Your task to perform on an android device: Search for sushi restaurants on Maps Image 0: 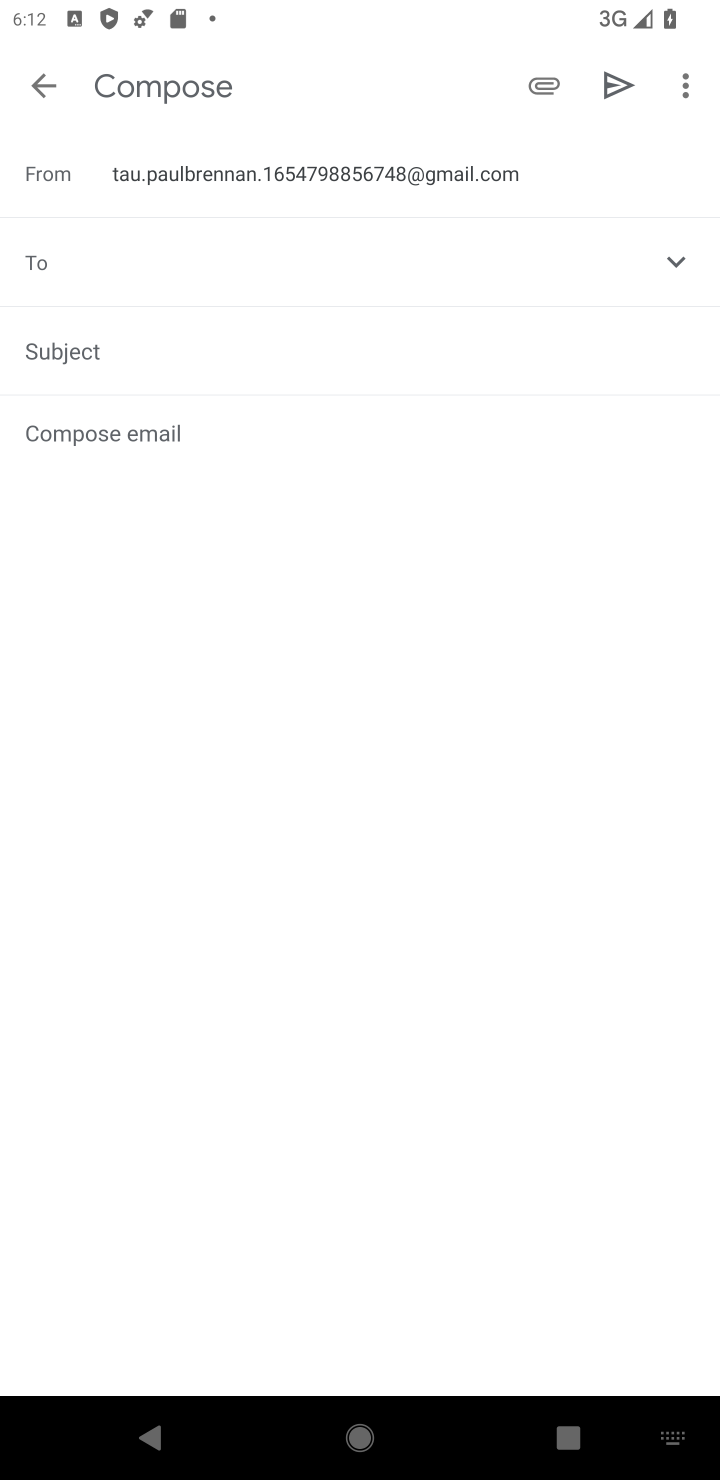
Step 0: press home button
Your task to perform on an android device: Search for sushi restaurants on Maps Image 1: 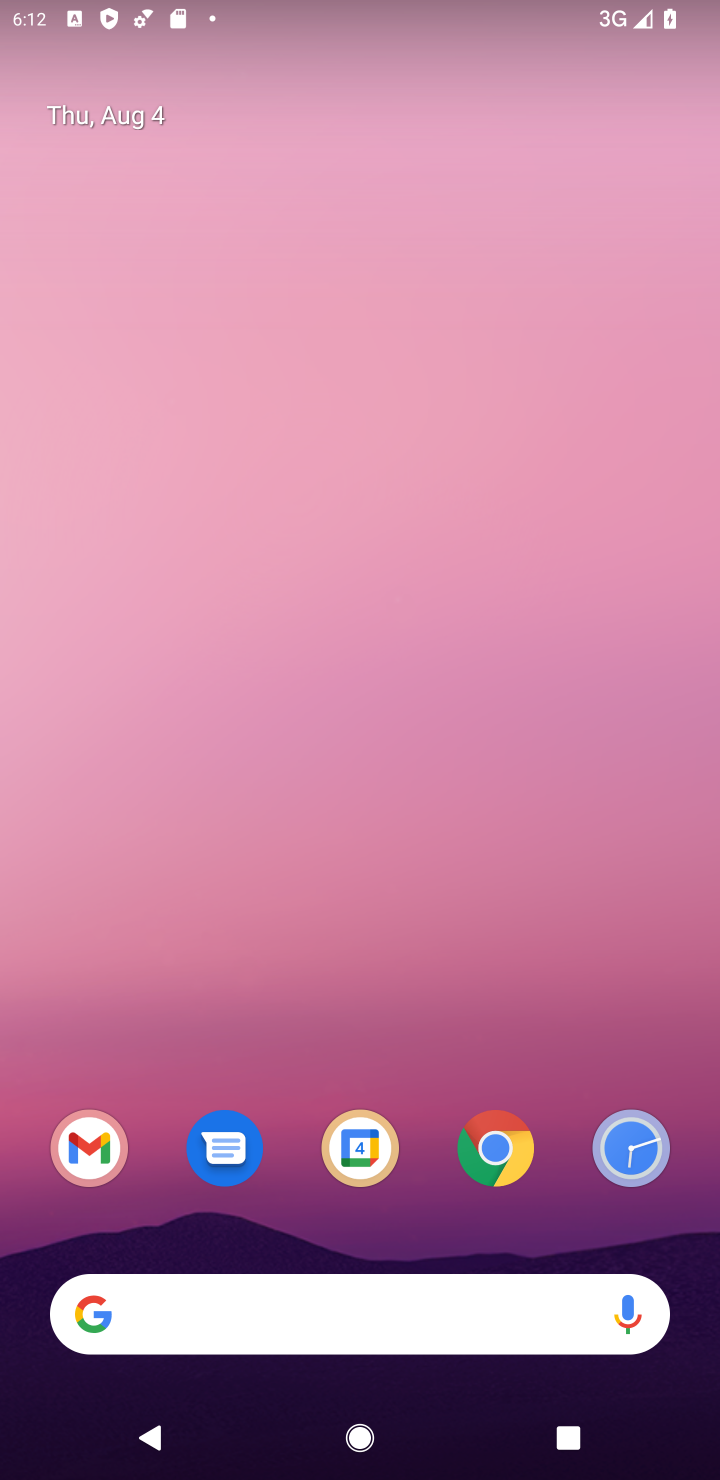
Step 1: drag from (412, 1247) to (402, 357)
Your task to perform on an android device: Search for sushi restaurants on Maps Image 2: 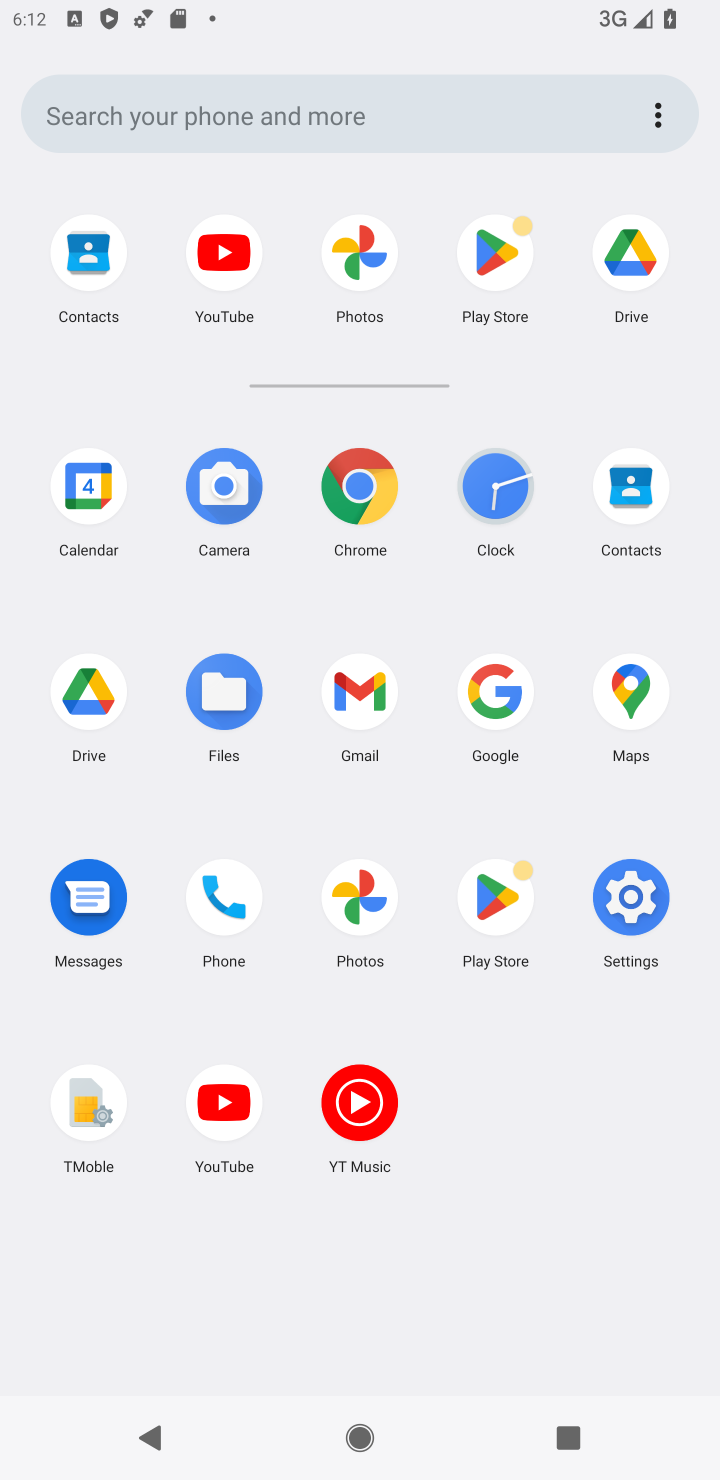
Step 2: click (623, 684)
Your task to perform on an android device: Search for sushi restaurants on Maps Image 3: 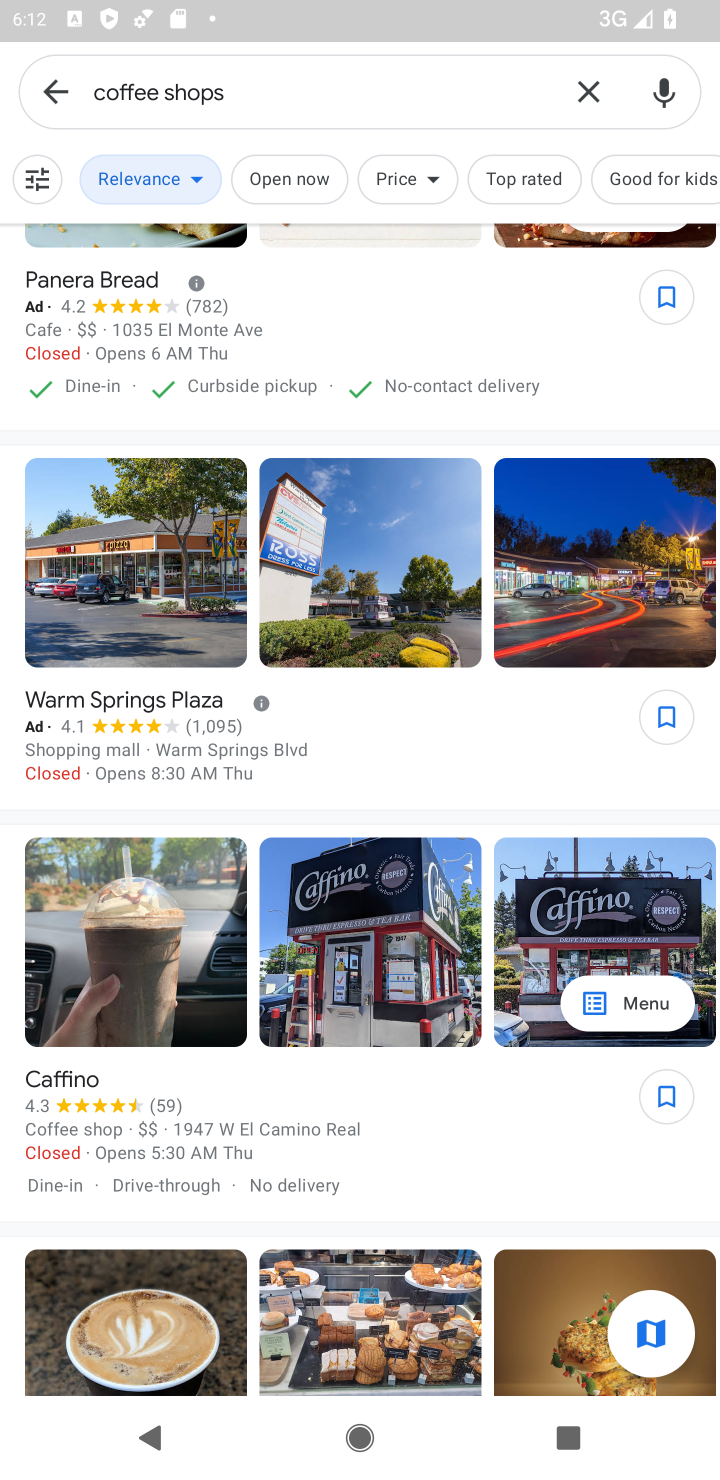
Step 3: click (587, 88)
Your task to perform on an android device: Search for sushi restaurants on Maps Image 4: 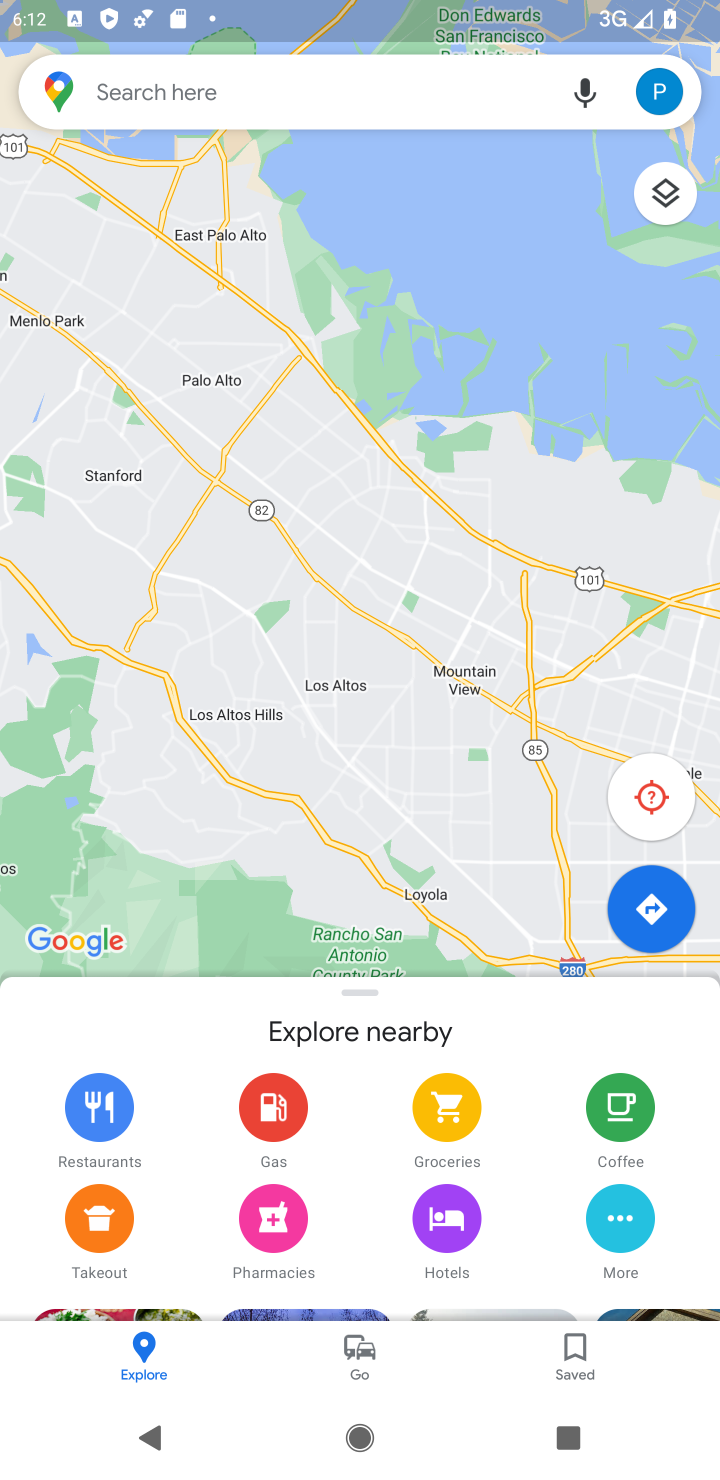
Step 4: click (201, 83)
Your task to perform on an android device: Search for sushi restaurants on Maps Image 5: 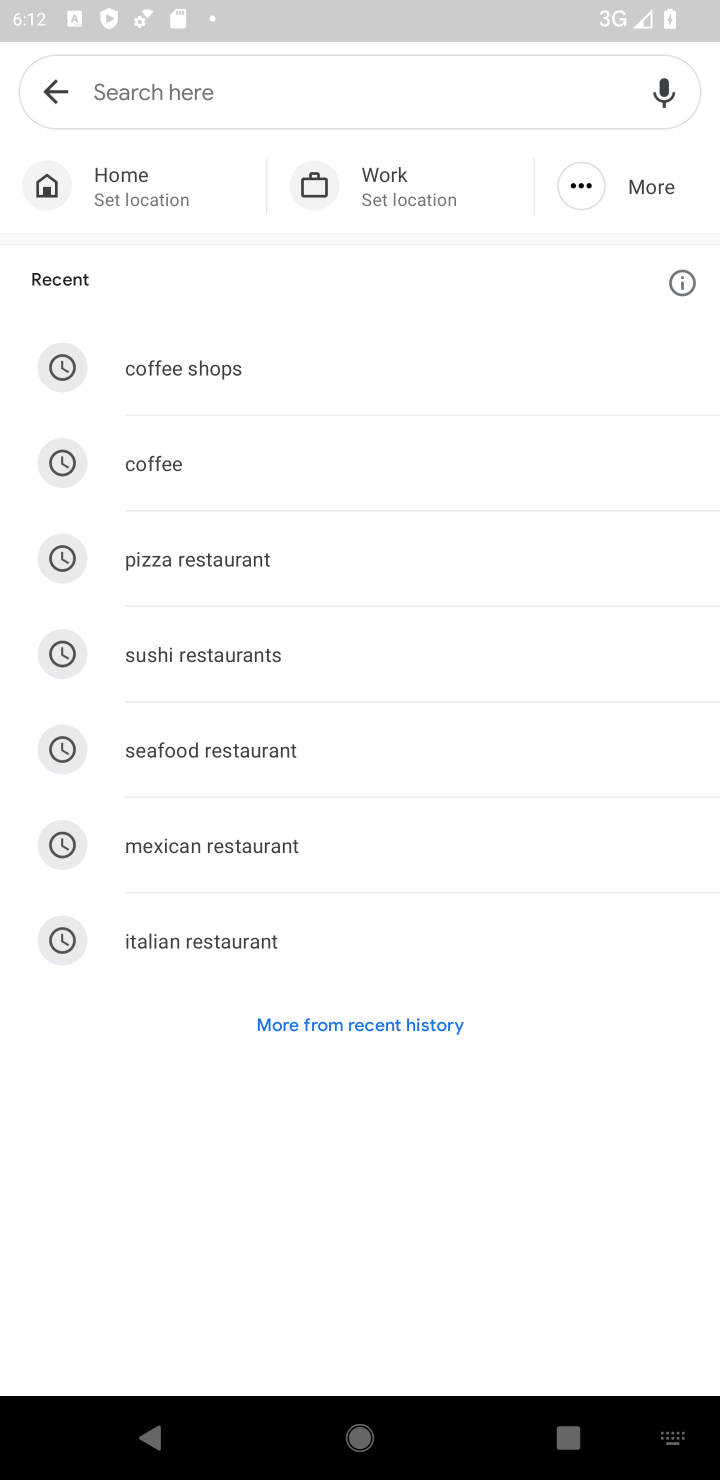
Step 5: type "sushi restaurants"
Your task to perform on an android device: Search for sushi restaurants on Maps Image 6: 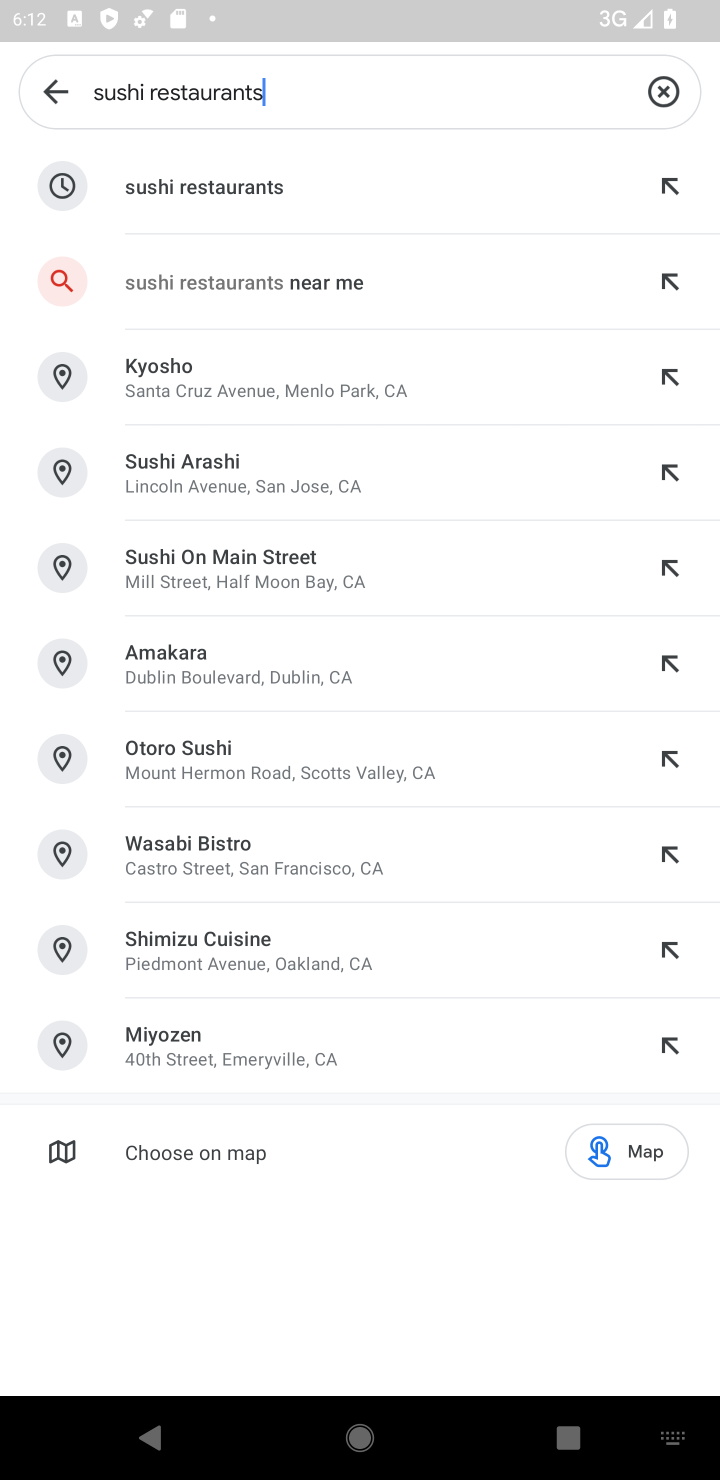
Step 6: click (242, 185)
Your task to perform on an android device: Search for sushi restaurants on Maps Image 7: 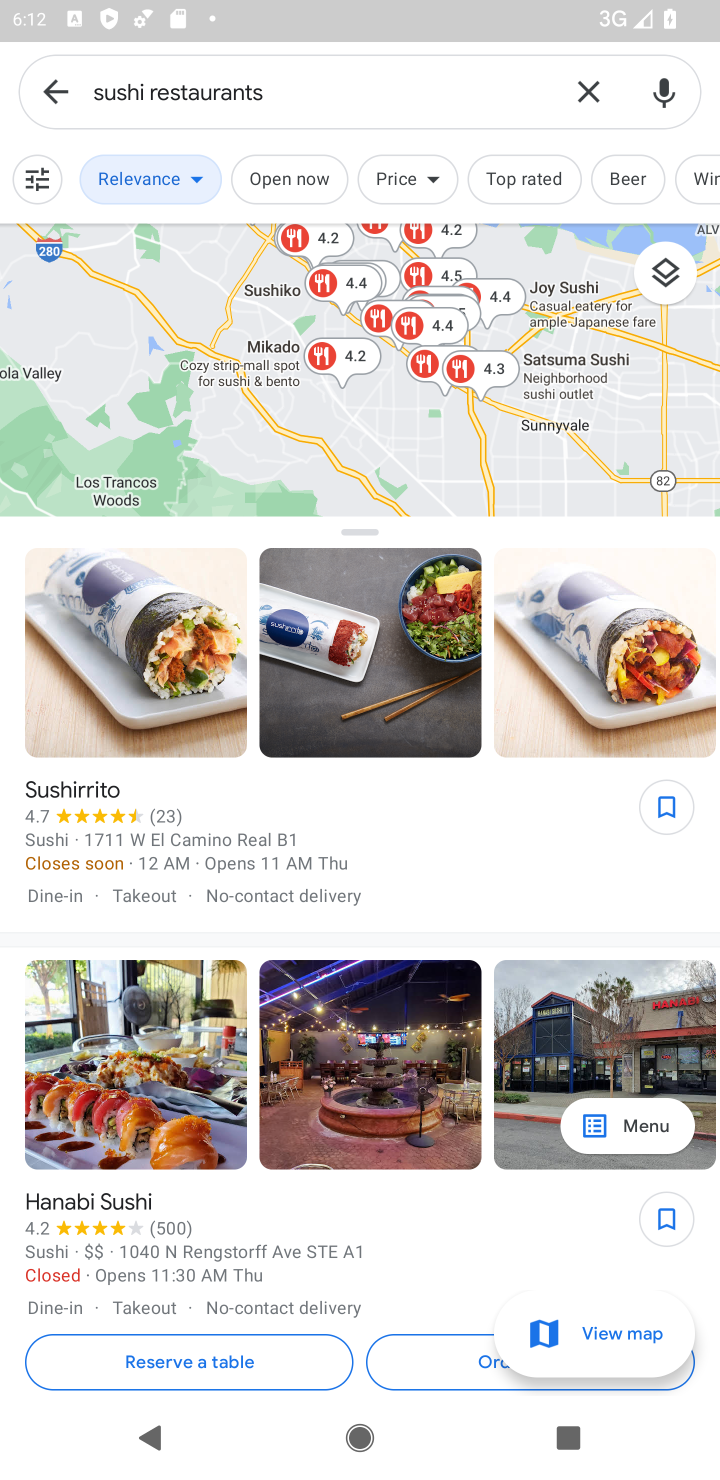
Step 7: task complete